Your task to perform on an android device: Open ESPN.com Image 0: 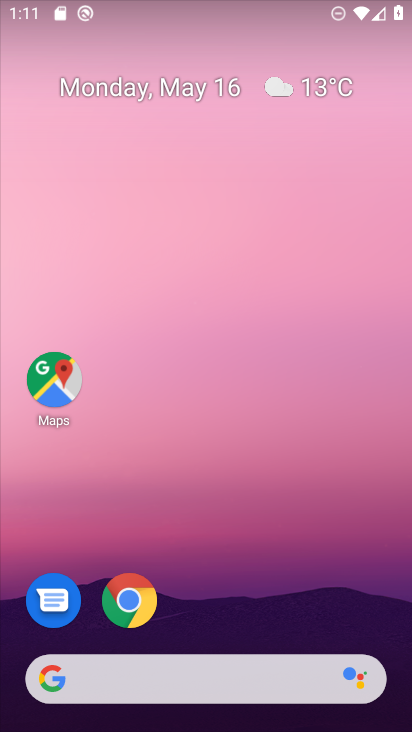
Step 0: press home button
Your task to perform on an android device: Open ESPN.com Image 1: 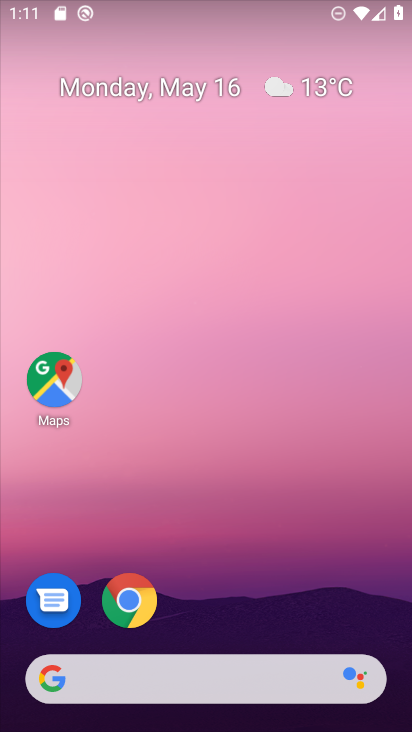
Step 1: click (128, 599)
Your task to perform on an android device: Open ESPN.com Image 2: 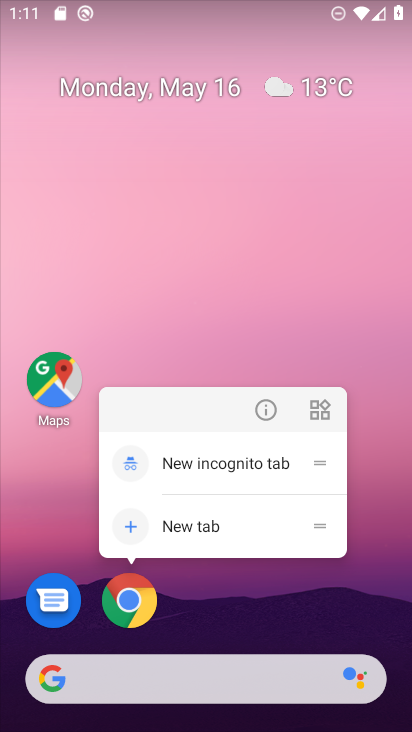
Step 2: click (134, 599)
Your task to perform on an android device: Open ESPN.com Image 3: 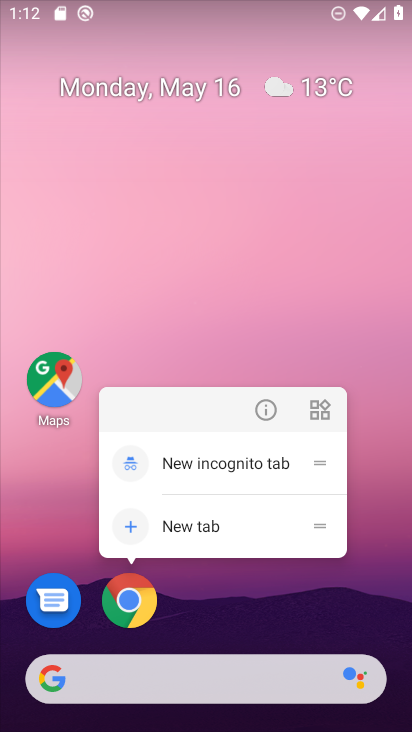
Step 3: click (126, 593)
Your task to perform on an android device: Open ESPN.com Image 4: 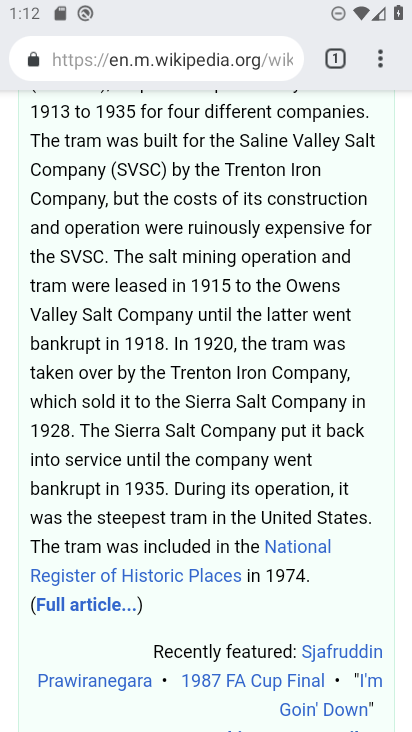
Step 4: click (340, 50)
Your task to perform on an android device: Open ESPN.com Image 5: 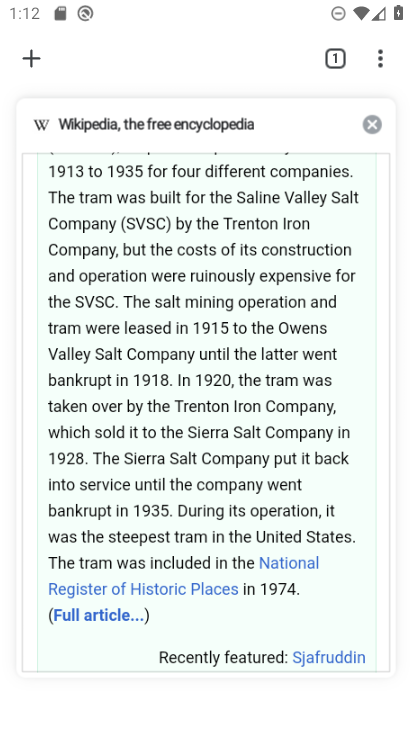
Step 5: click (371, 120)
Your task to perform on an android device: Open ESPN.com Image 6: 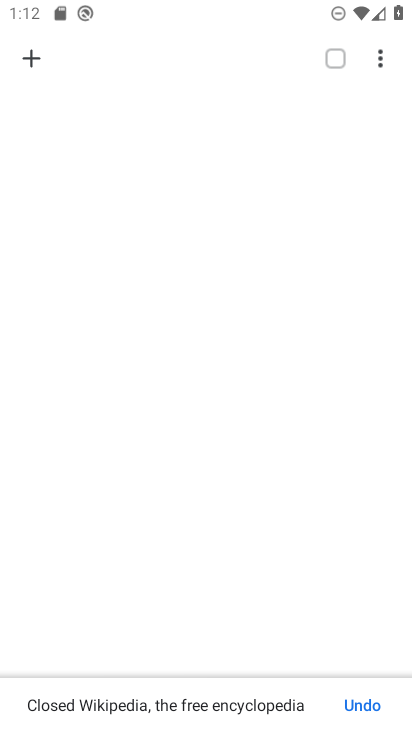
Step 6: click (35, 60)
Your task to perform on an android device: Open ESPN.com Image 7: 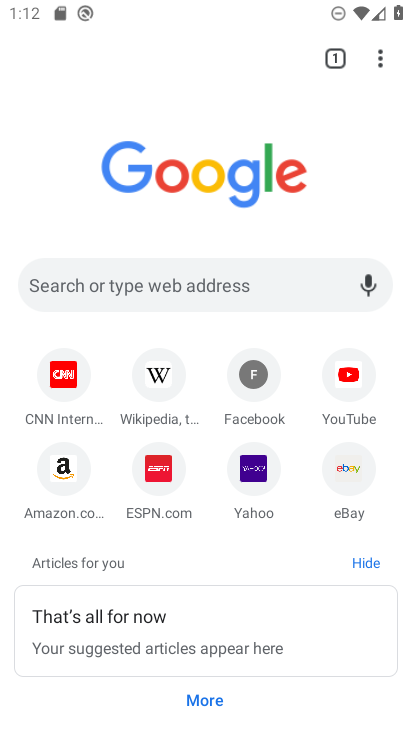
Step 7: click (162, 464)
Your task to perform on an android device: Open ESPN.com Image 8: 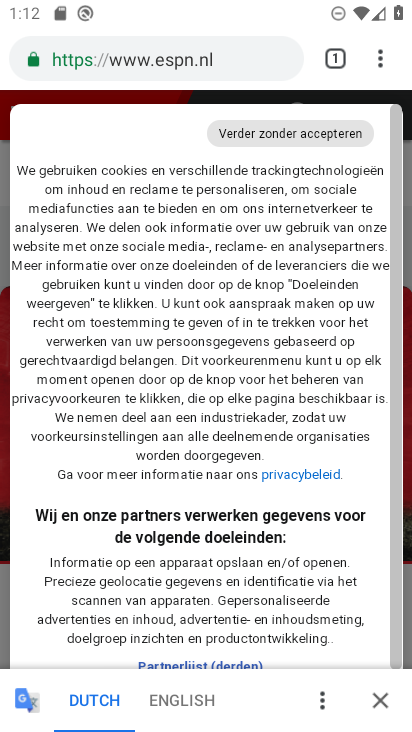
Step 8: drag from (230, 607) to (277, 219)
Your task to perform on an android device: Open ESPN.com Image 9: 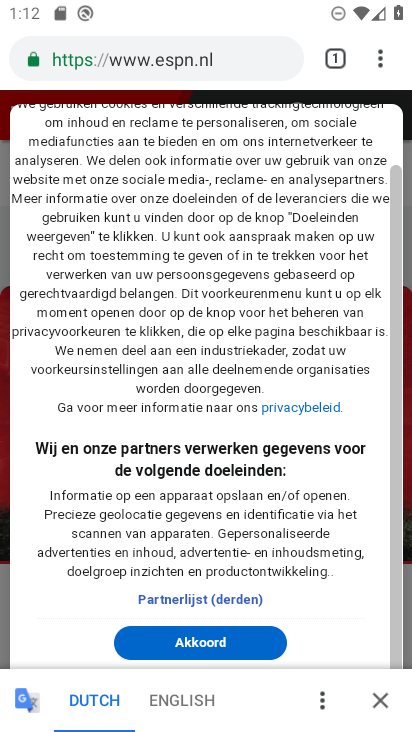
Step 9: click (380, 701)
Your task to perform on an android device: Open ESPN.com Image 10: 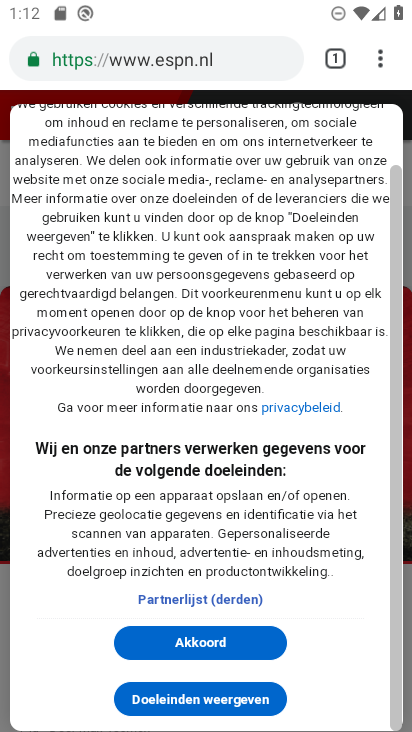
Step 10: click (205, 641)
Your task to perform on an android device: Open ESPN.com Image 11: 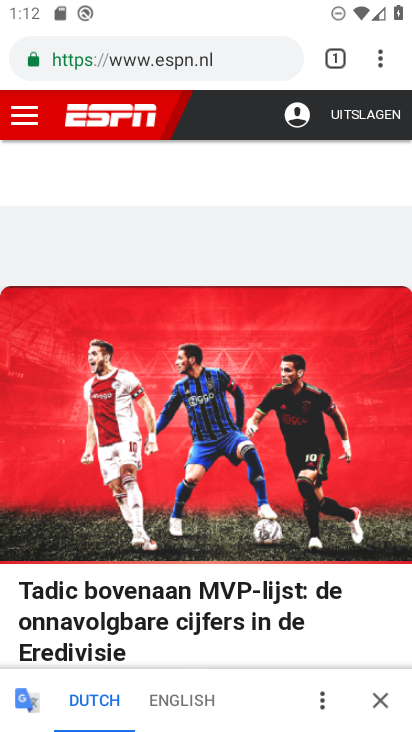
Step 11: task complete